Your task to perform on an android device: open app "eBay: The shopping marketplace" (install if not already installed), go to login, and select forgot password Image 0: 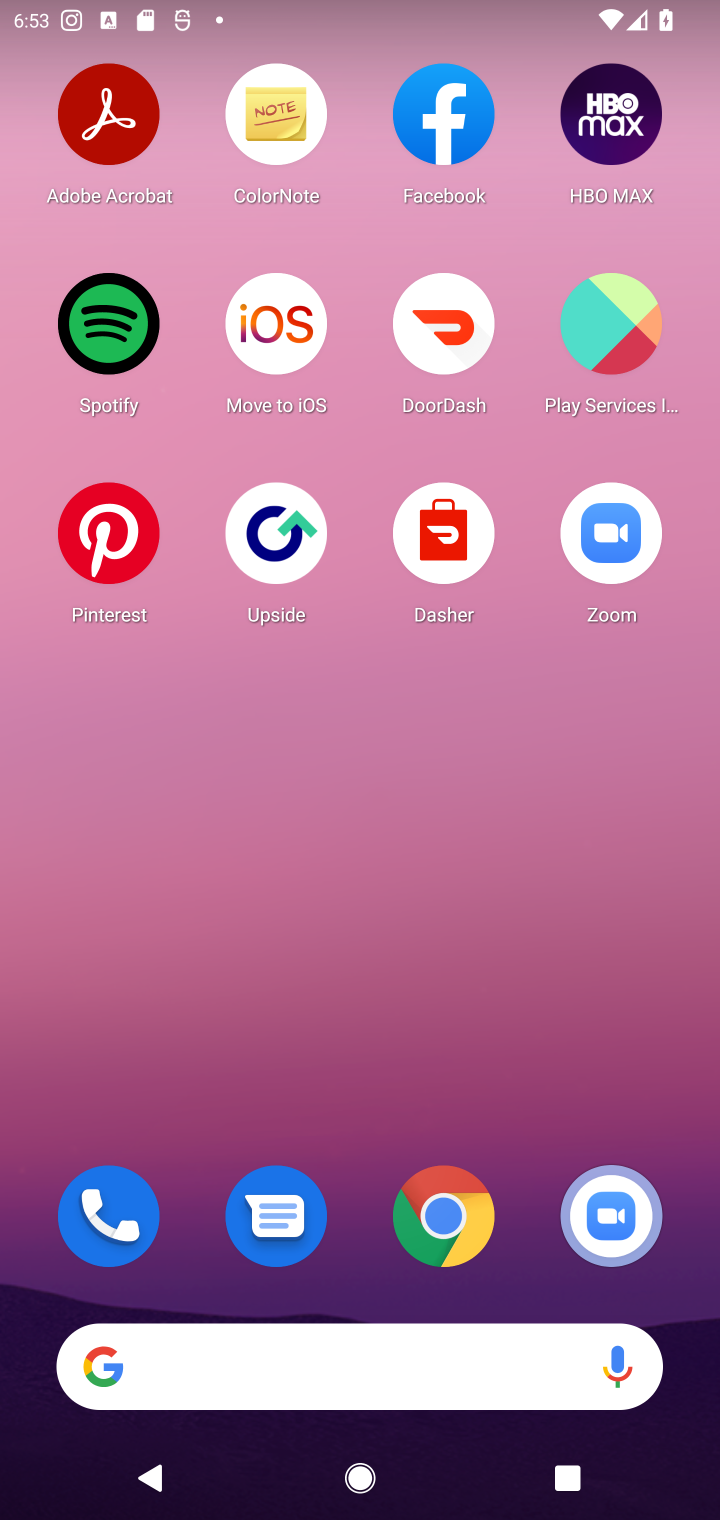
Step 0: drag from (404, 1092) to (423, 269)
Your task to perform on an android device: open app "eBay: The shopping marketplace" (install if not already installed), go to login, and select forgot password Image 1: 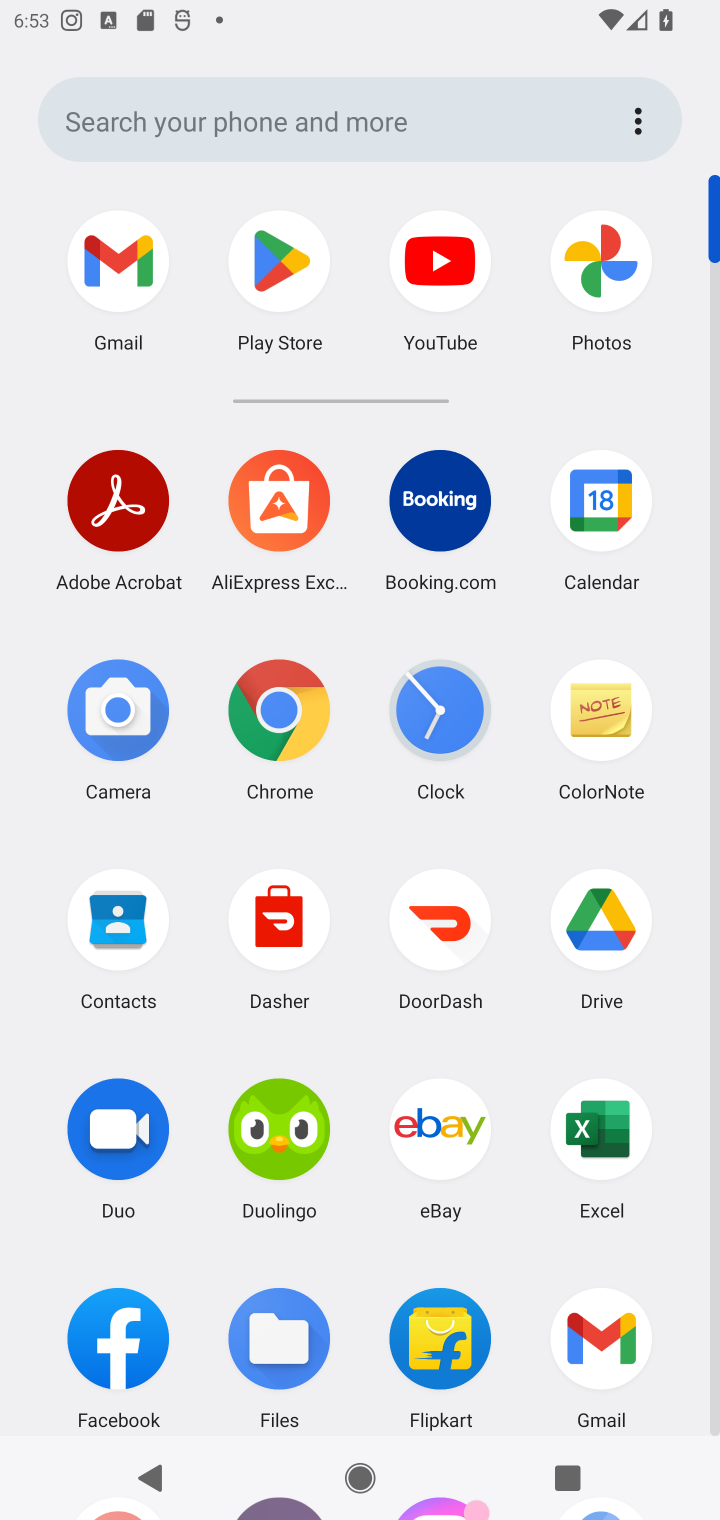
Step 1: click (268, 270)
Your task to perform on an android device: open app "eBay: The shopping marketplace" (install if not already installed), go to login, and select forgot password Image 2: 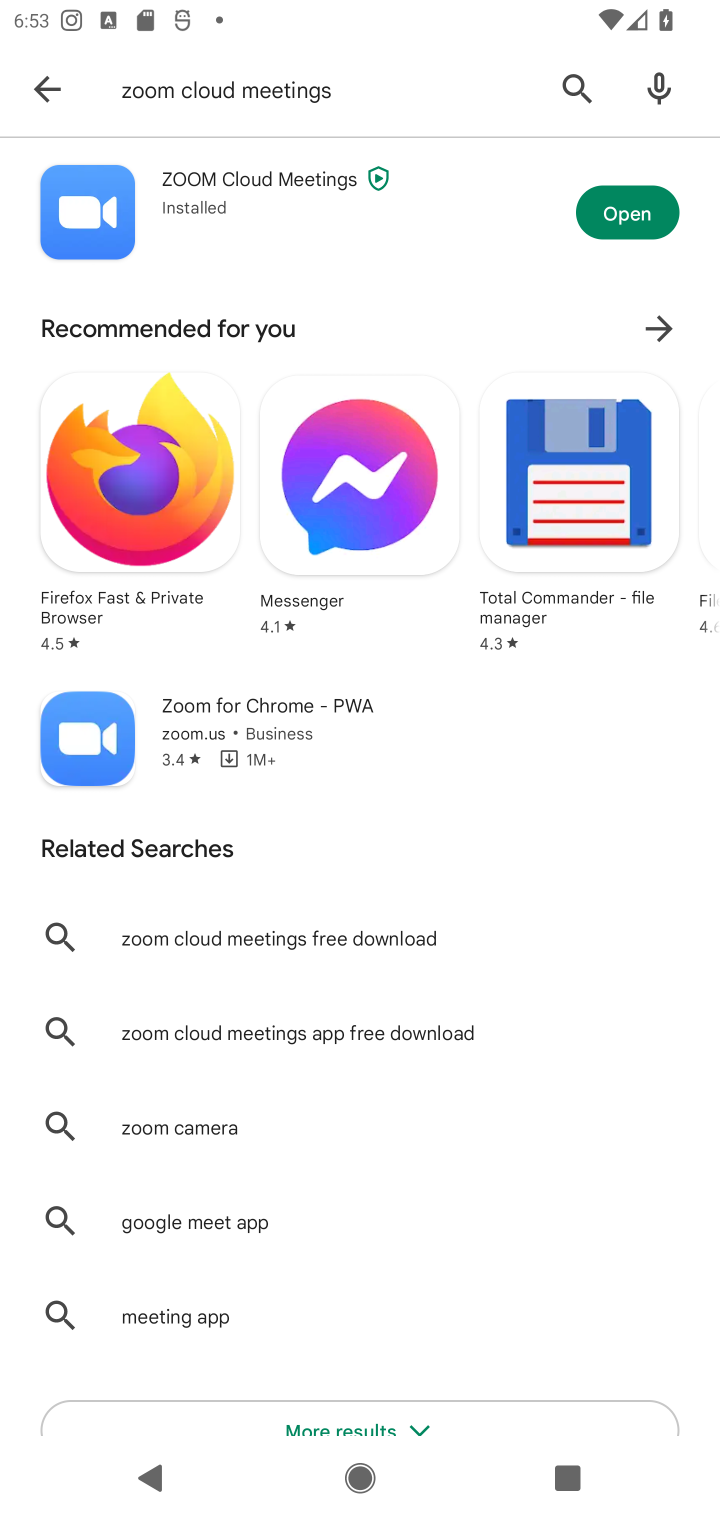
Step 2: click (567, 98)
Your task to perform on an android device: open app "eBay: The shopping marketplace" (install if not already installed), go to login, and select forgot password Image 3: 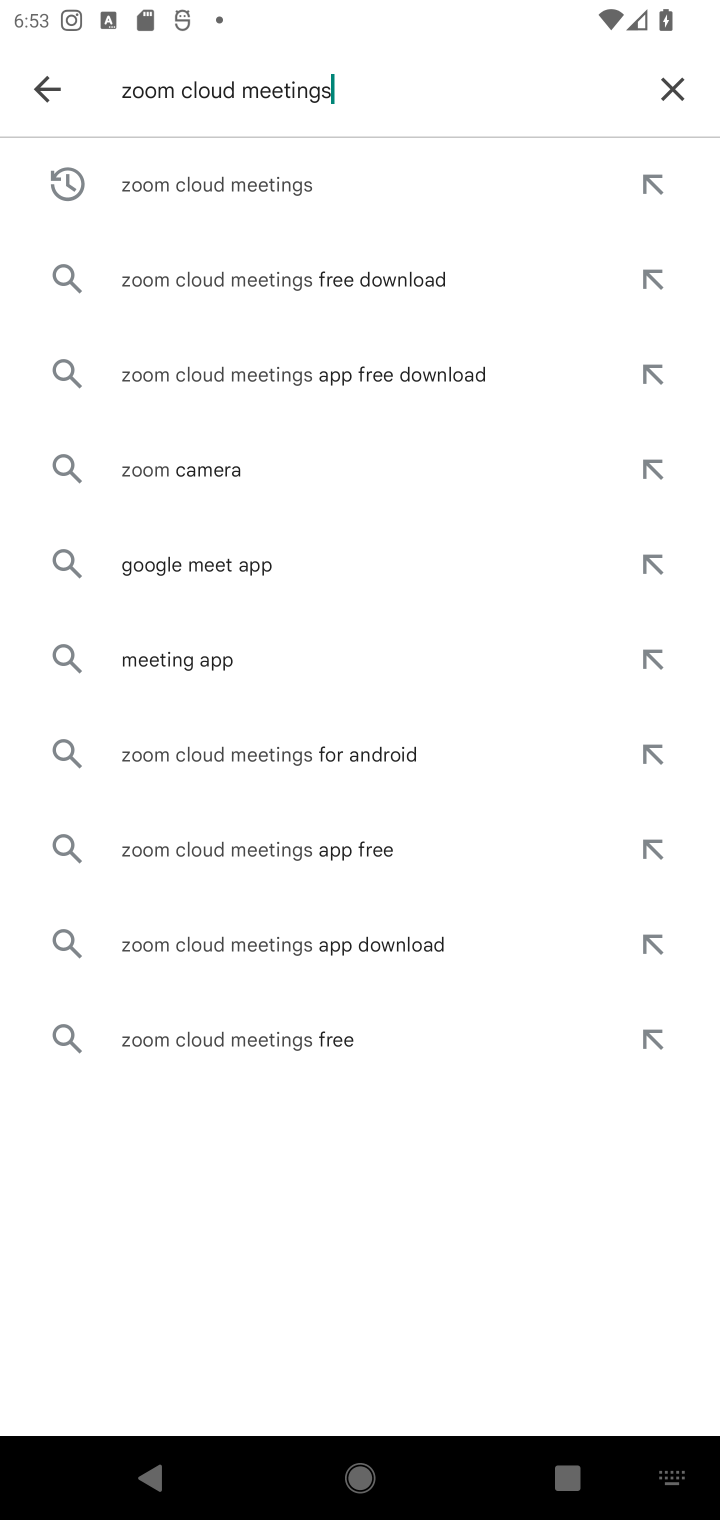
Step 3: click (680, 83)
Your task to perform on an android device: open app "eBay: The shopping marketplace" (install if not already installed), go to login, and select forgot password Image 4: 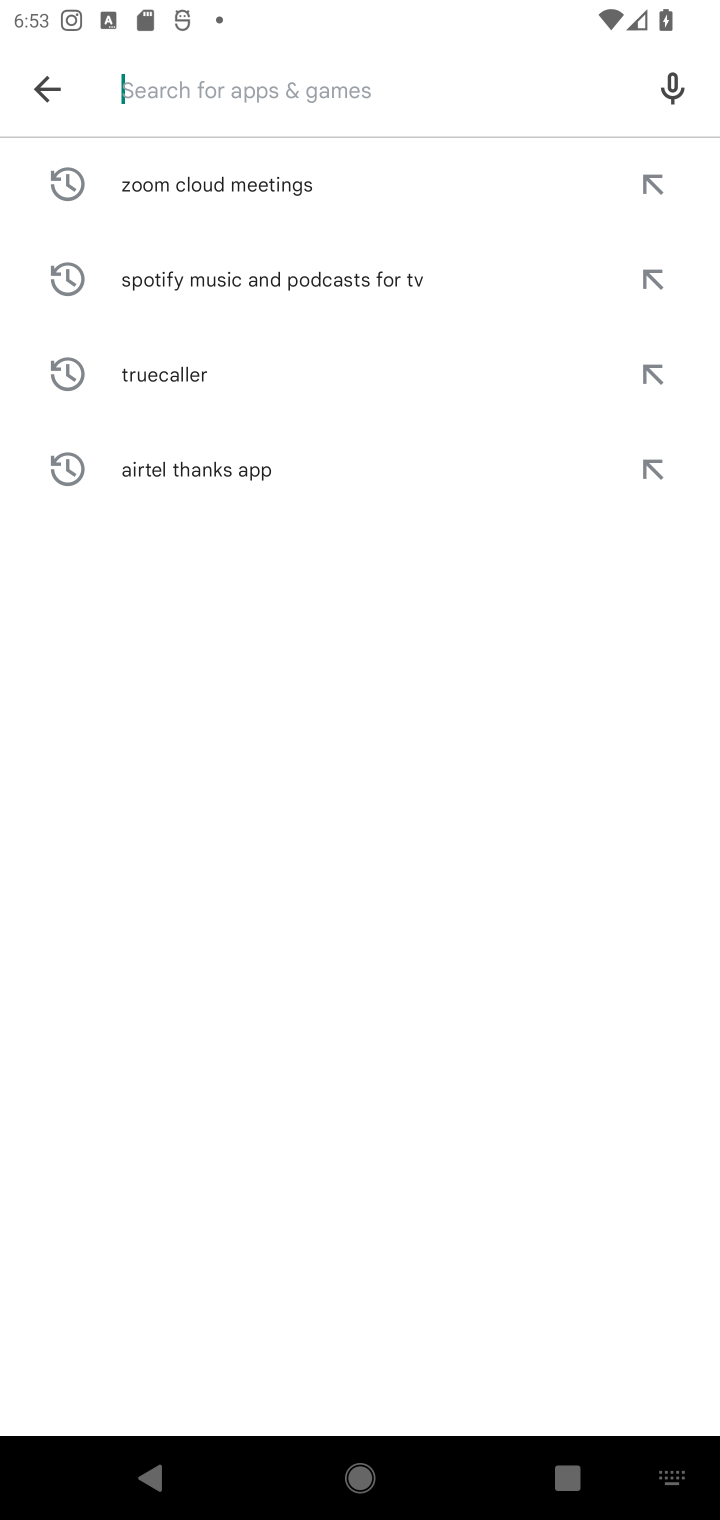
Step 4: type "eBay: The shopping marketplace"
Your task to perform on an android device: open app "eBay: The shopping marketplace" (install if not already installed), go to login, and select forgot password Image 5: 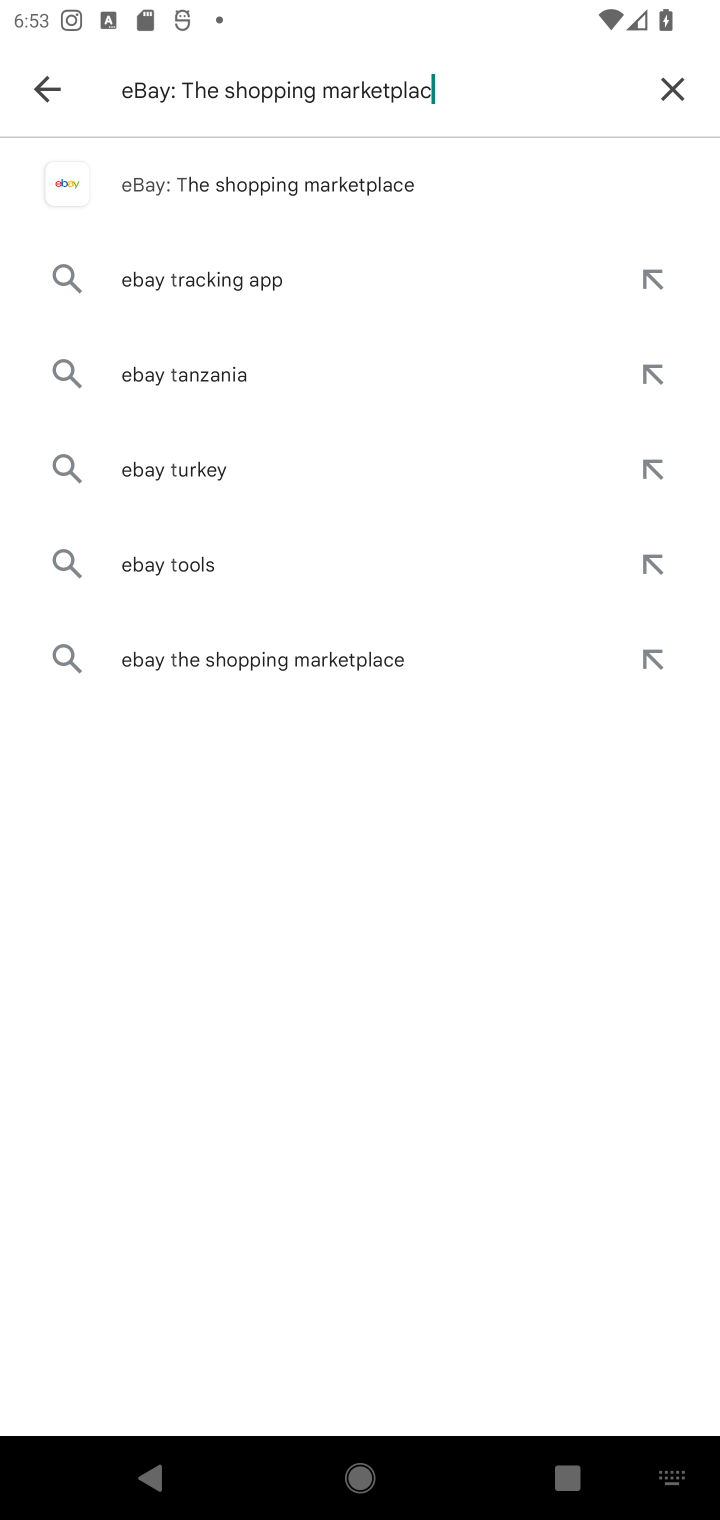
Step 5: type ""
Your task to perform on an android device: open app "eBay: The shopping marketplace" (install if not already installed), go to login, and select forgot password Image 6: 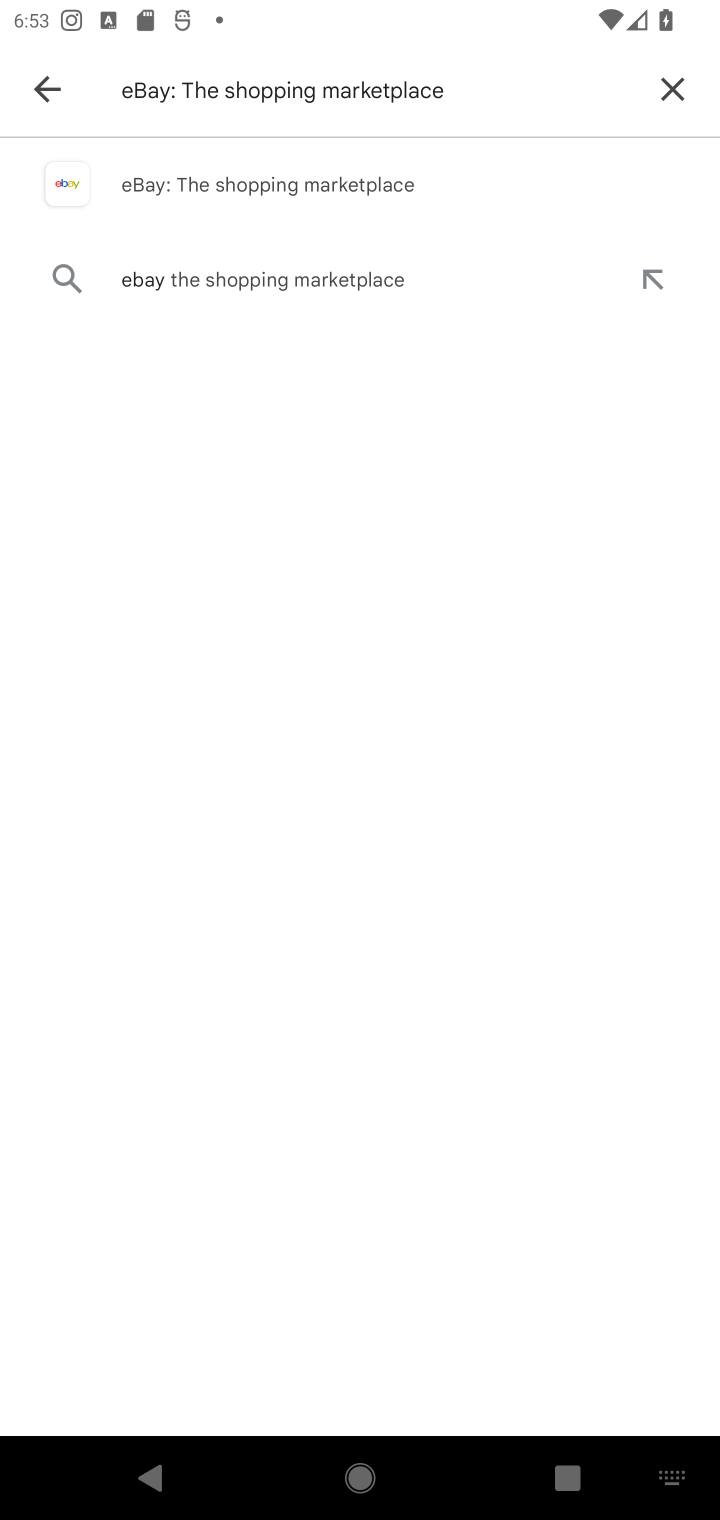
Step 6: click (279, 196)
Your task to perform on an android device: open app "eBay: The shopping marketplace" (install if not already installed), go to login, and select forgot password Image 7: 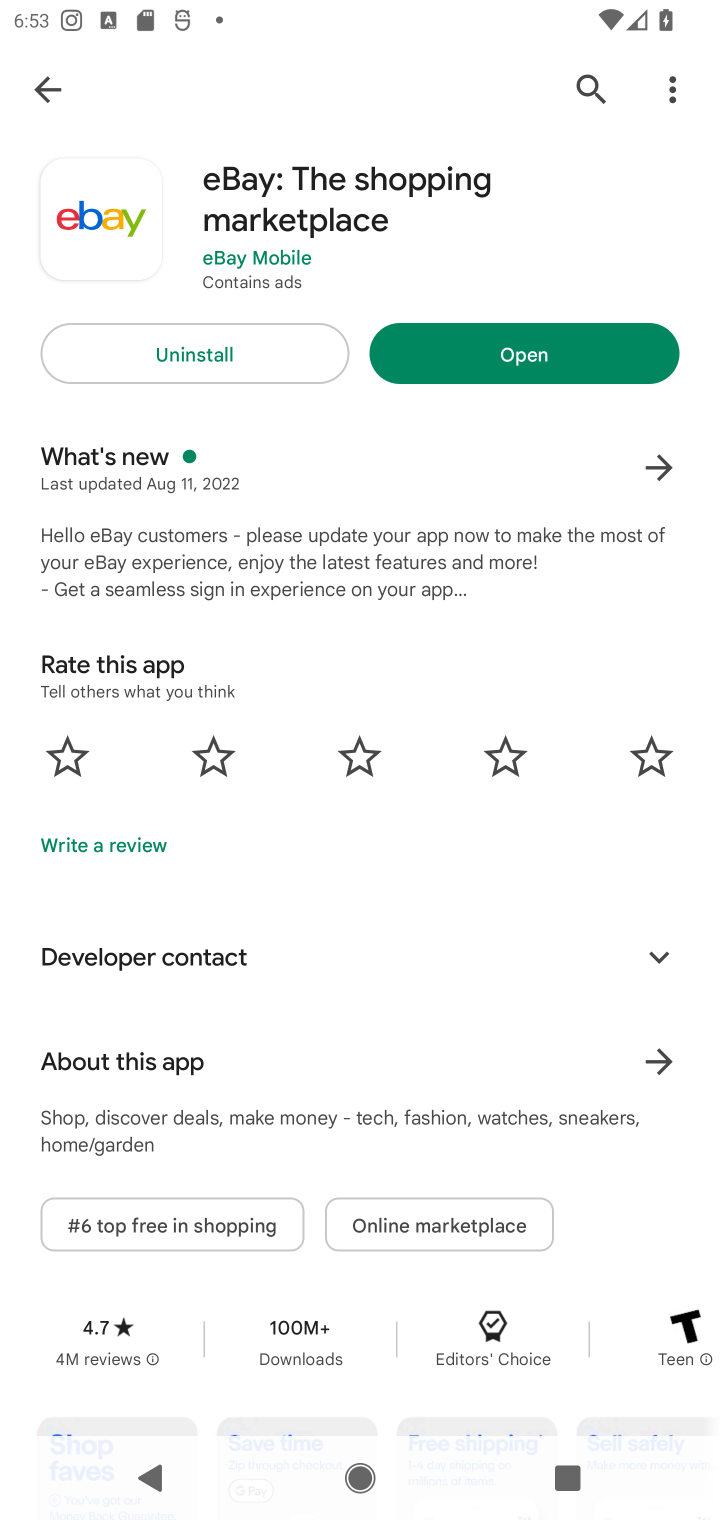
Step 7: click (512, 347)
Your task to perform on an android device: open app "eBay: The shopping marketplace" (install if not already installed), go to login, and select forgot password Image 8: 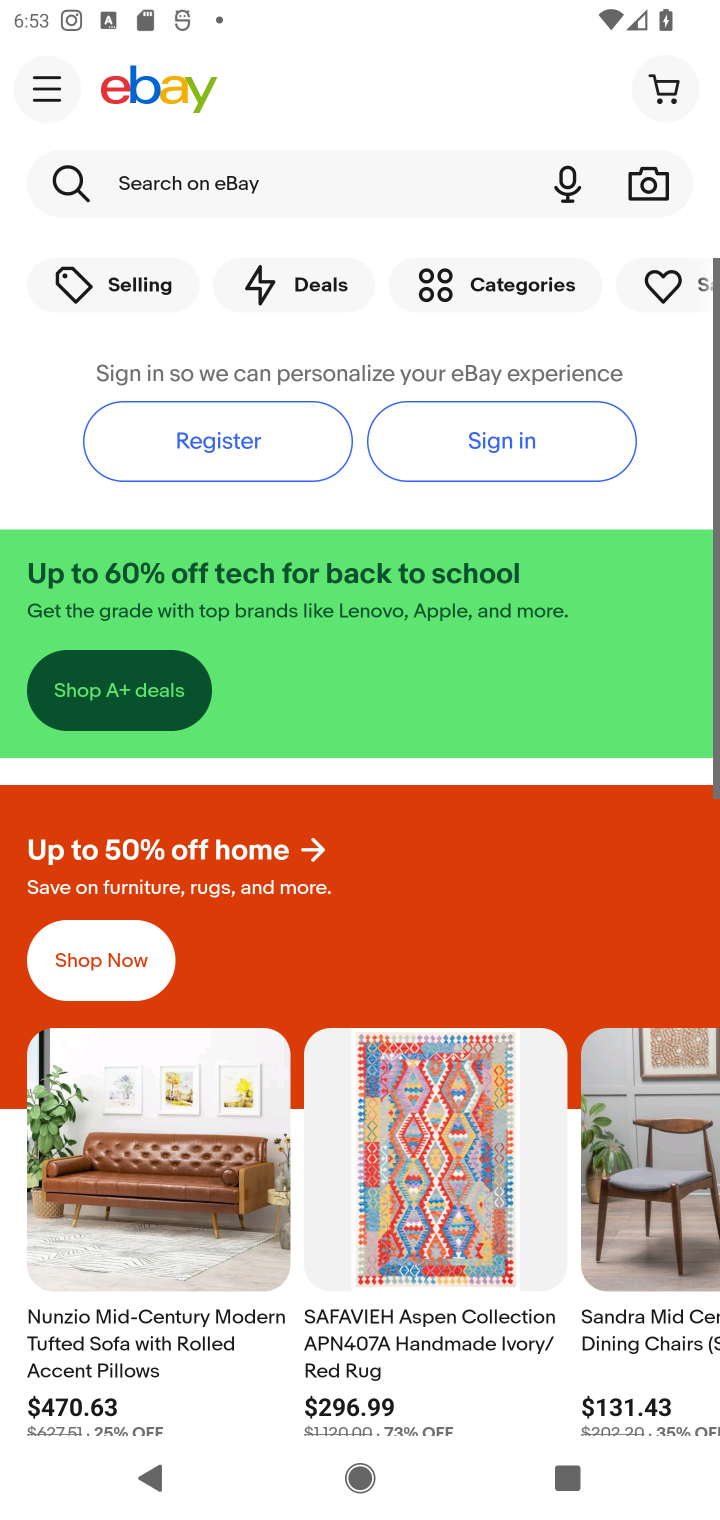
Step 8: task complete